Your task to perform on an android device: Open Yahoo.com Image 0: 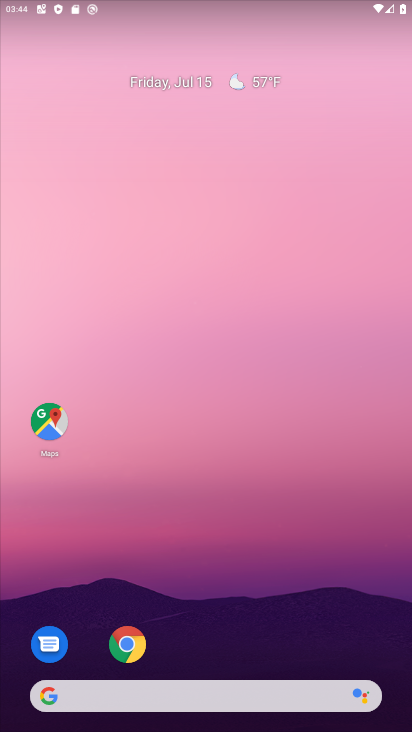
Step 0: click (126, 645)
Your task to perform on an android device: Open Yahoo.com Image 1: 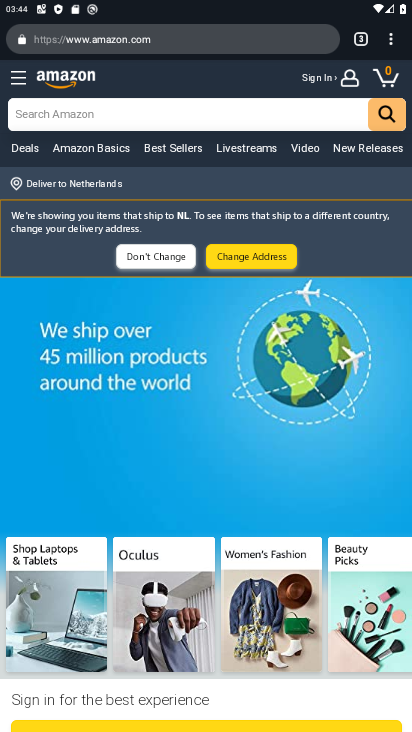
Step 1: click (241, 41)
Your task to perform on an android device: Open Yahoo.com Image 2: 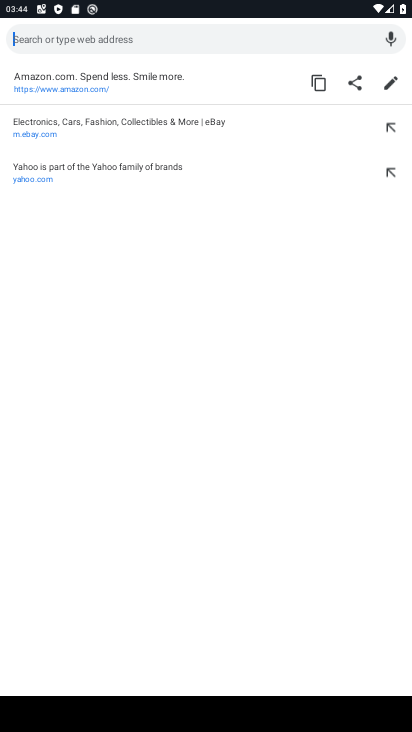
Step 2: type "yahoo.com"
Your task to perform on an android device: Open Yahoo.com Image 3: 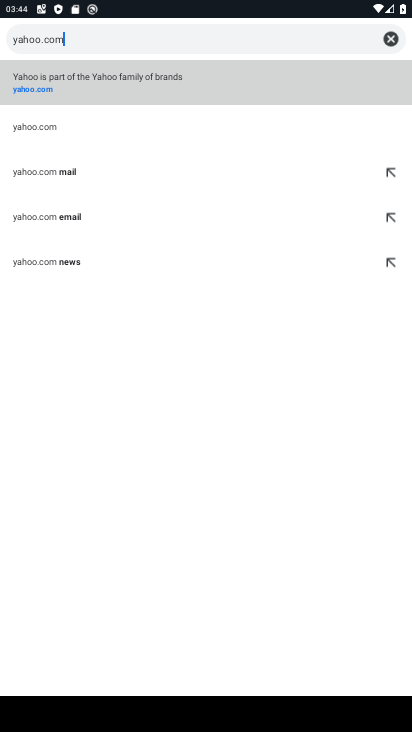
Step 3: click (210, 73)
Your task to perform on an android device: Open Yahoo.com Image 4: 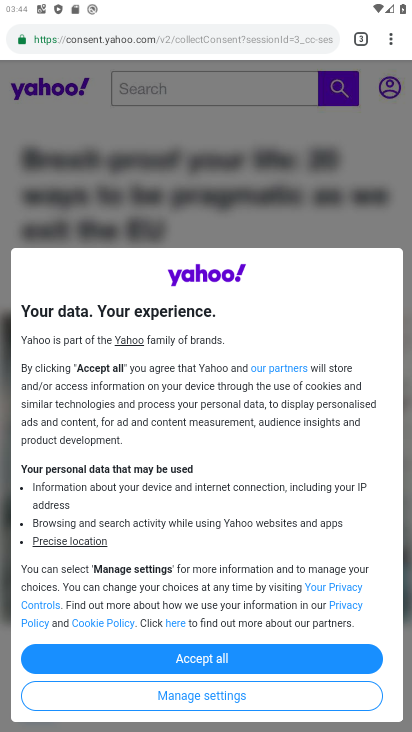
Step 4: task complete